Your task to perform on an android device: turn on data saver in the chrome app Image 0: 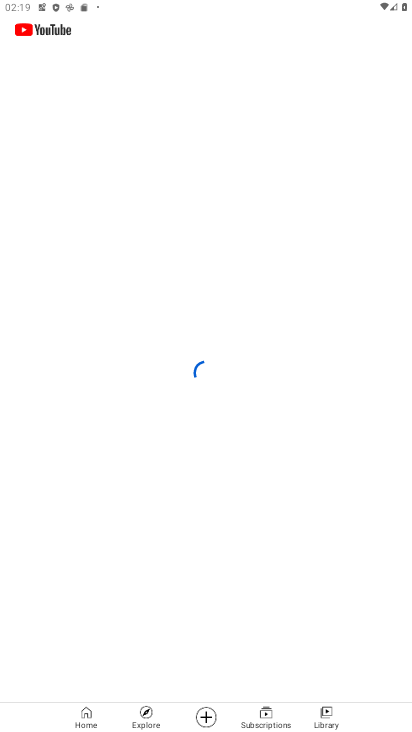
Step 0: press home button
Your task to perform on an android device: turn on data saver in the chrome app Image 1: 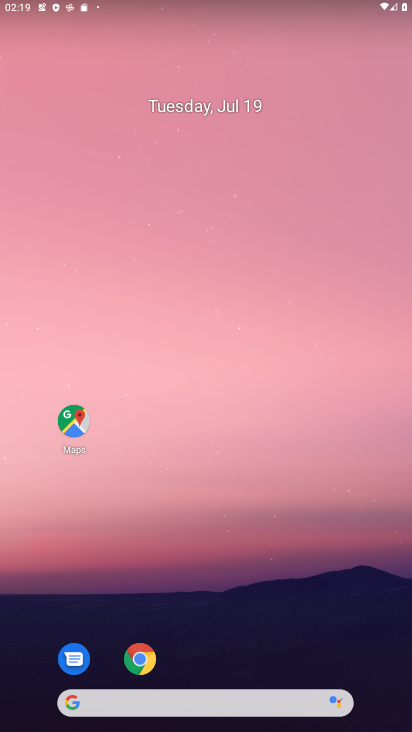
Step 1: click (151, 668)
Your task to perform on an android device: turn on data saver in the chrome app Image 2: 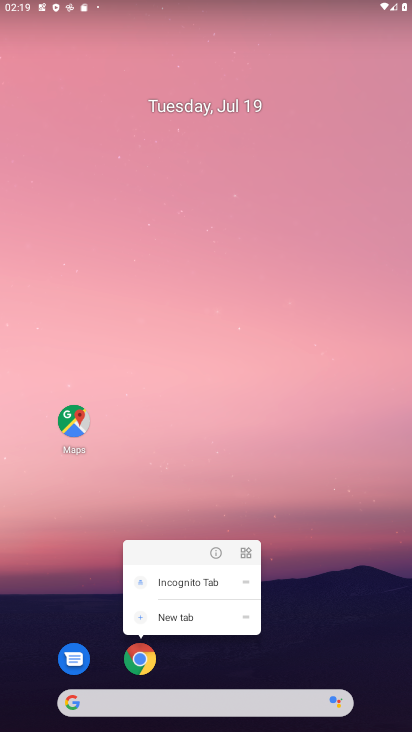
Step 2: click (151, 668)
Your task to perform on an android device: turn on data saver in the chrome app Image 3: 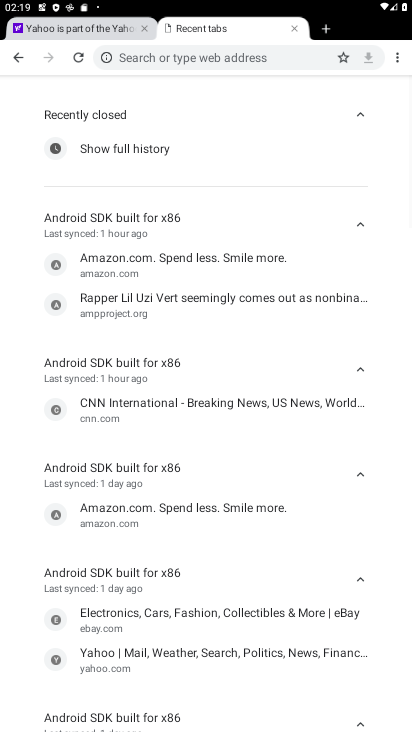
Step 3: drag from (398, 54) to (263, 308)
Your task to perform on an android device: turn on data saver in the chrome app Image 4: 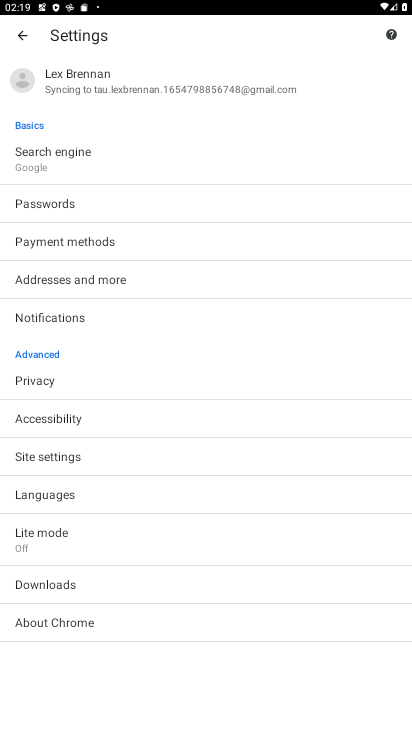
Step 4: click (30, 523)
Your task to perform on an android device: turn on data saver in the chrome app Image 5: 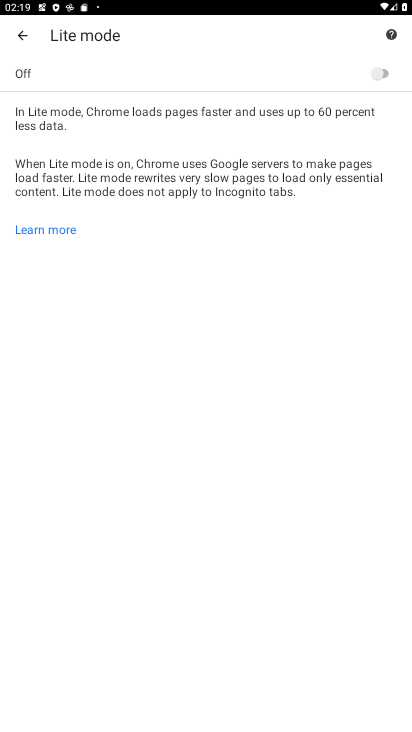
Step 5: click (353, 81)
Your task to perform on an android device: turn on data saver in the chrome app Image 6: 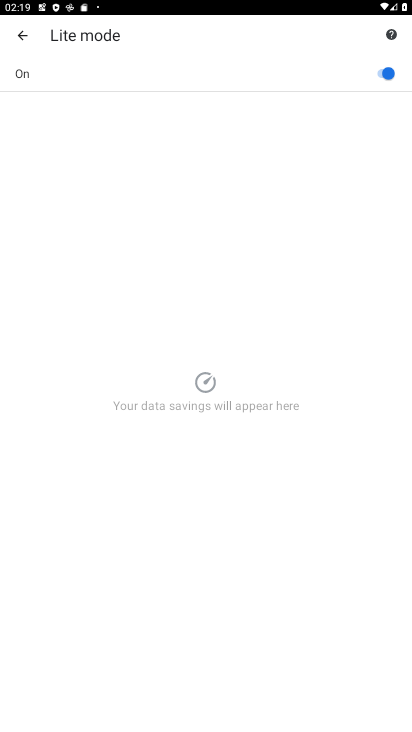
Step 6: task complete